Your task to perform on an android device: Open Google Chrome Image 0: 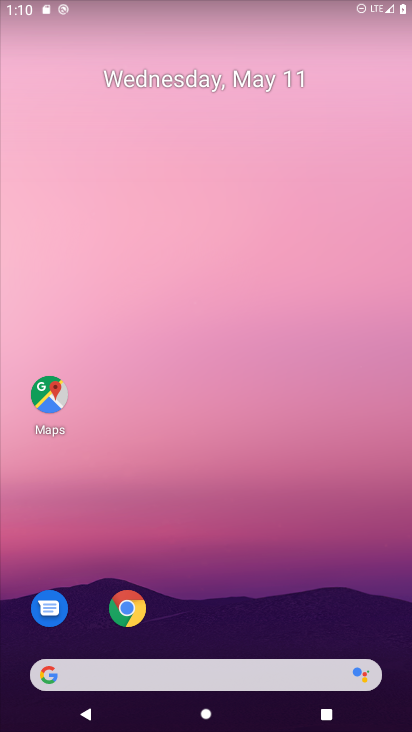
Step 0: click (129, 611)
Your task to perform on an android device: Open Google Chrome Image 1: 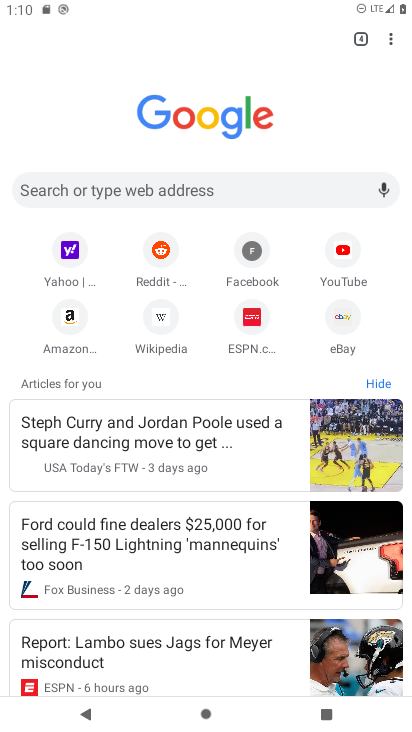
Step 1: task complete